Your task to perform on an android device: set an alarm Image 0: 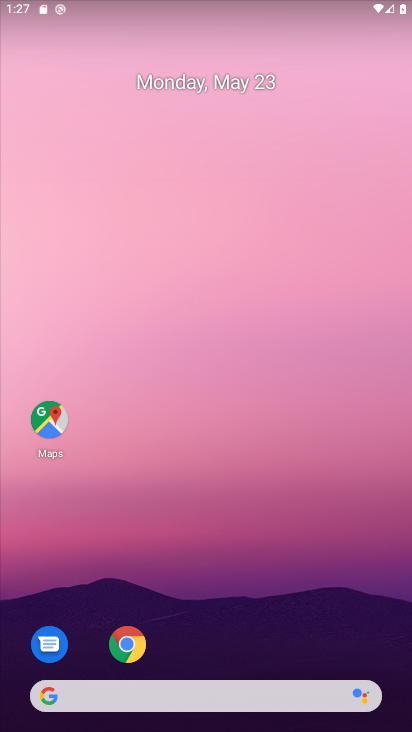
Step 0: drag from (192, 367) to (187, 148)
Your task to perform on an android device: set an alarm Image 1: 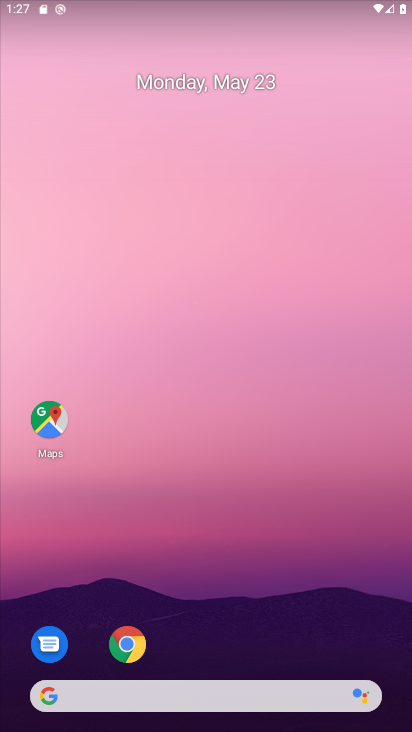
Step 1: drag from (236, 633) to (180, 145)
Your task to perform on an android device: set an alarm Image 2: 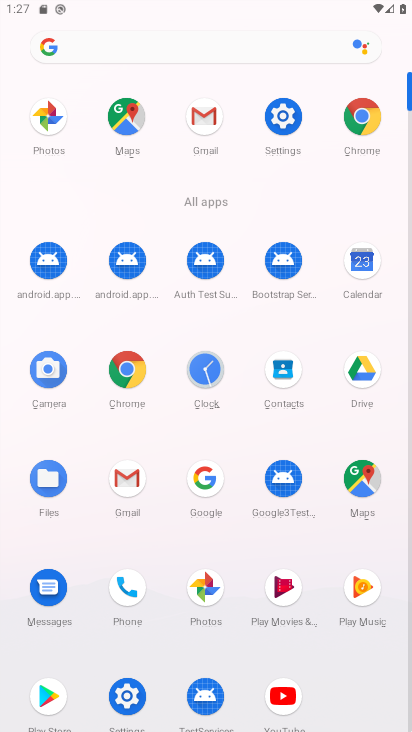
Step 2: click (209, 379)
Your task to perform on an android device: set an alarm Image 3: 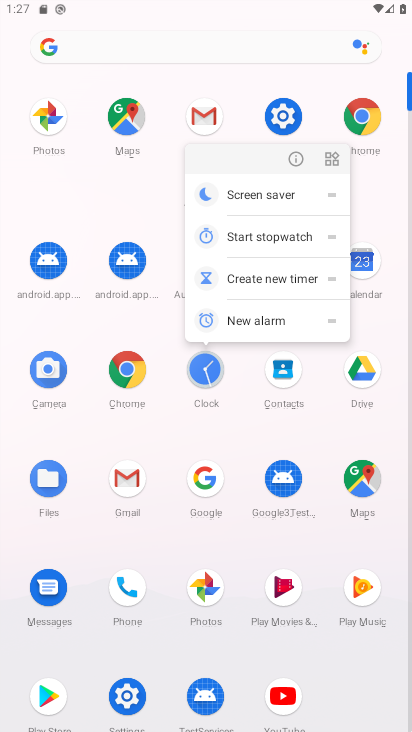
Step 3: click (205, 391)
Your task to perform on an android device: set an alarm Image 4: 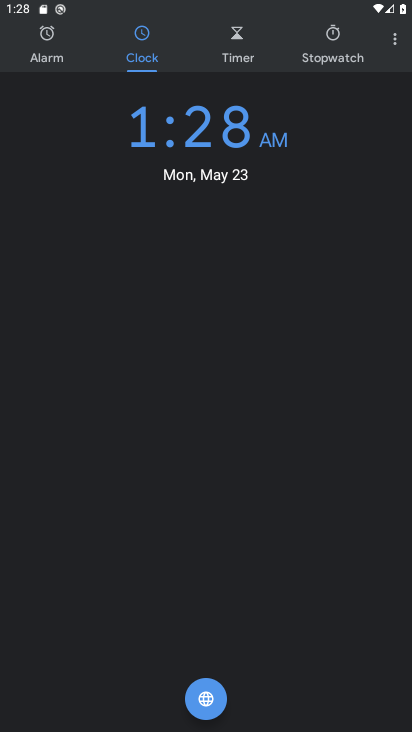
Step 4: click (62, 59)
Your task to perform on an android device: set an alarm Image 5: 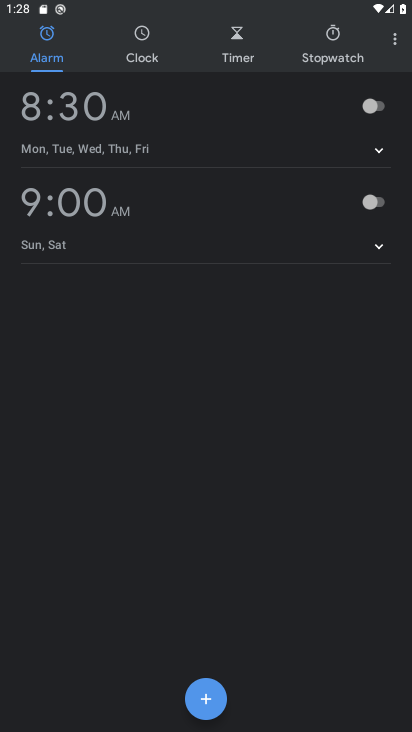
Step 5: click (384, 110)
Your task to perform on an android device: set an alarm Image 6: 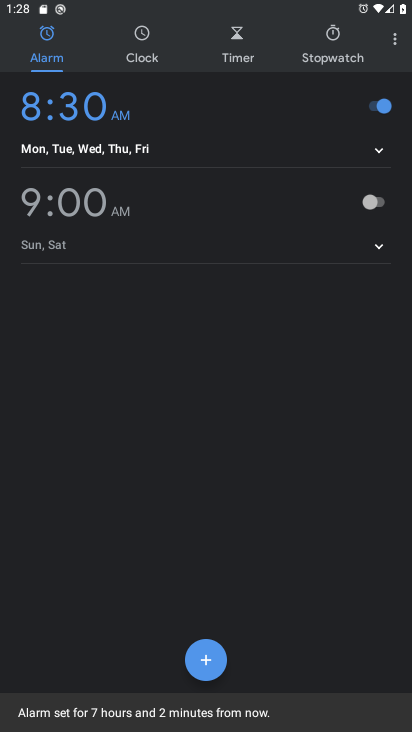
Step 6: task complete